Your task to perform on an android device: Open the stopwatch Image 0: 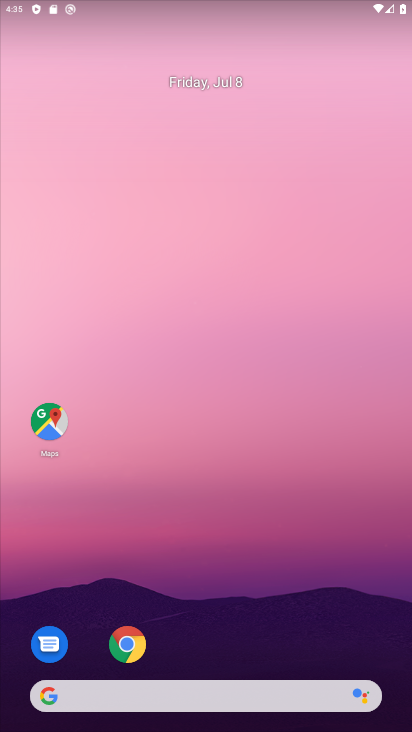
Step 0: drag from (297, 549) to (276, 151)
Your task to perform on an android device: Open the stopwatch Image 1: 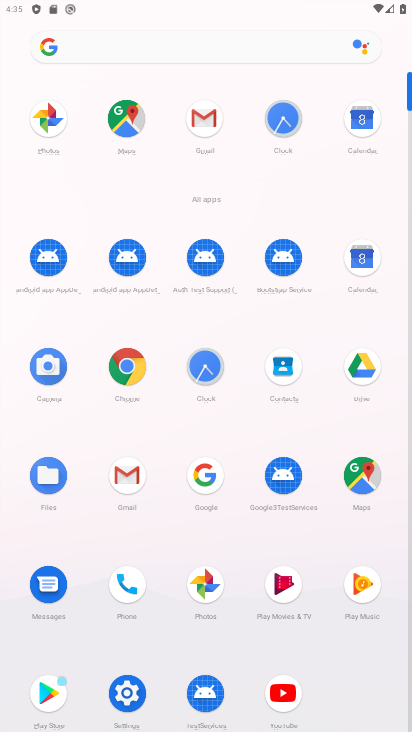
Step 1: click (207, 370)
Your task to perform on an android device: Open the stopwatch Image 2: 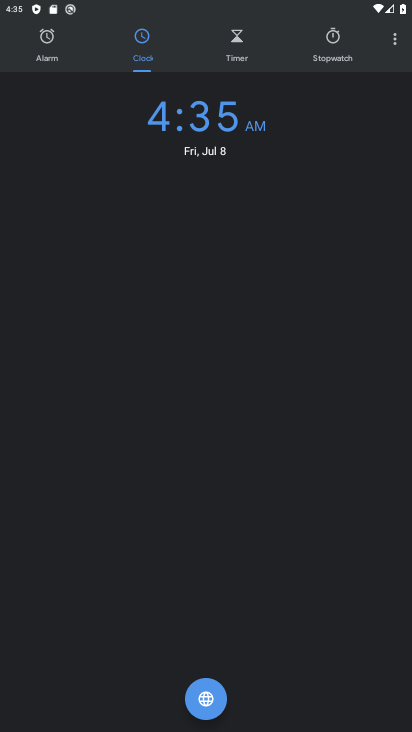
Step 2: click (340, 38)
Your task to perform on an android device: Open the stopwatch Image 3: 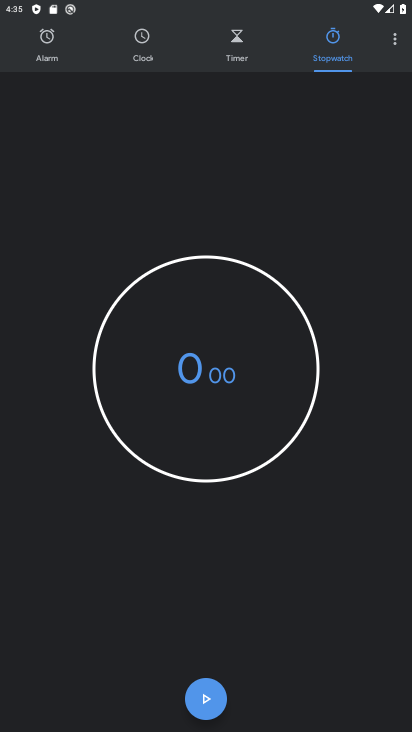
Step 3: task complete